Your task to perform on an android device: check android version Image 0: 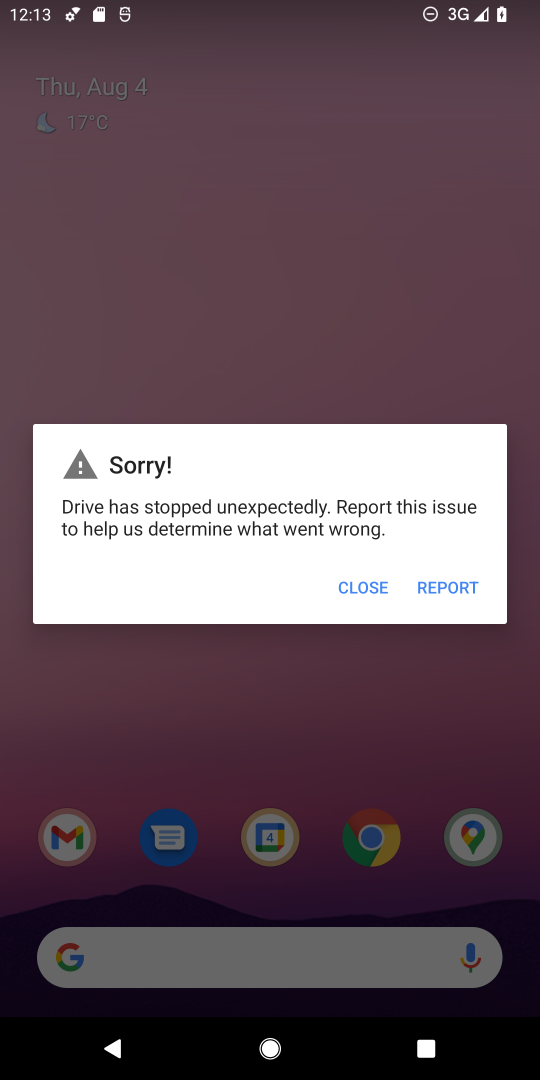
Step 0: click (355, 583)
Your task to perform on an android device: check android version Image 1: 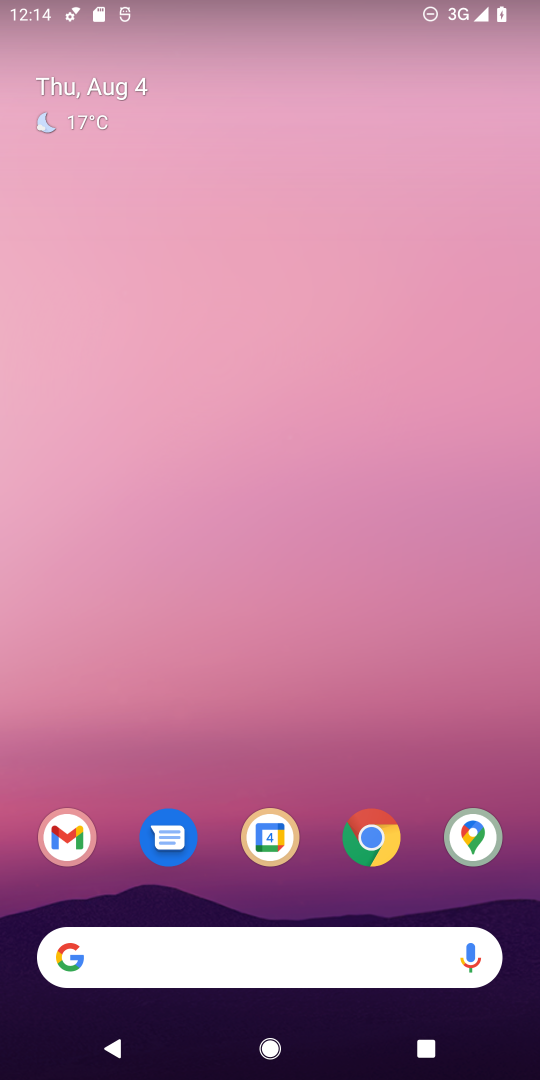
Step 1: drag from (323, 845) to (285, 86)
Your task to perform on an android device: check android version Image 2: 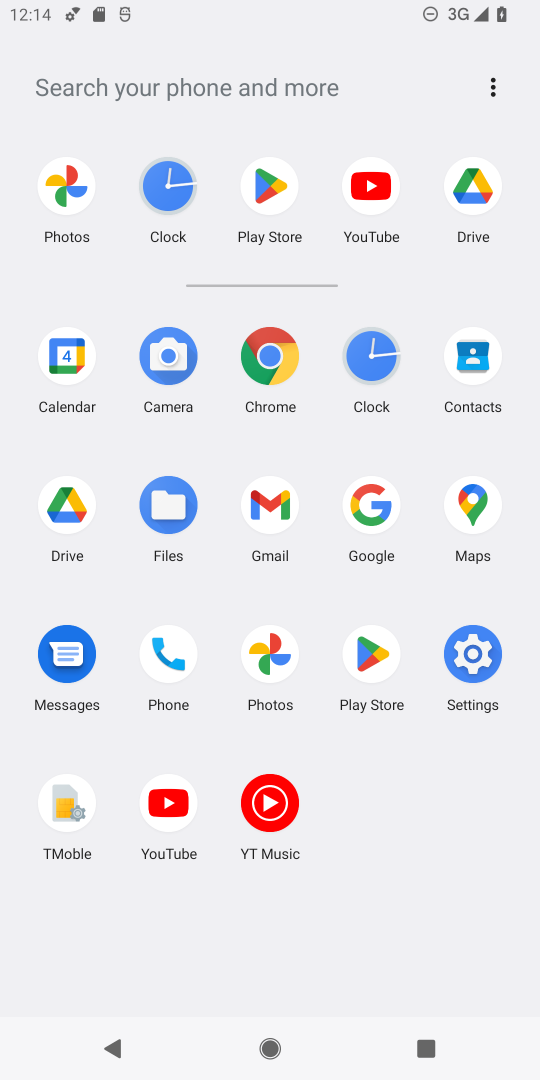
Step 2: click (459, 661)
Your task to perform on an android device: check android version Image 3: 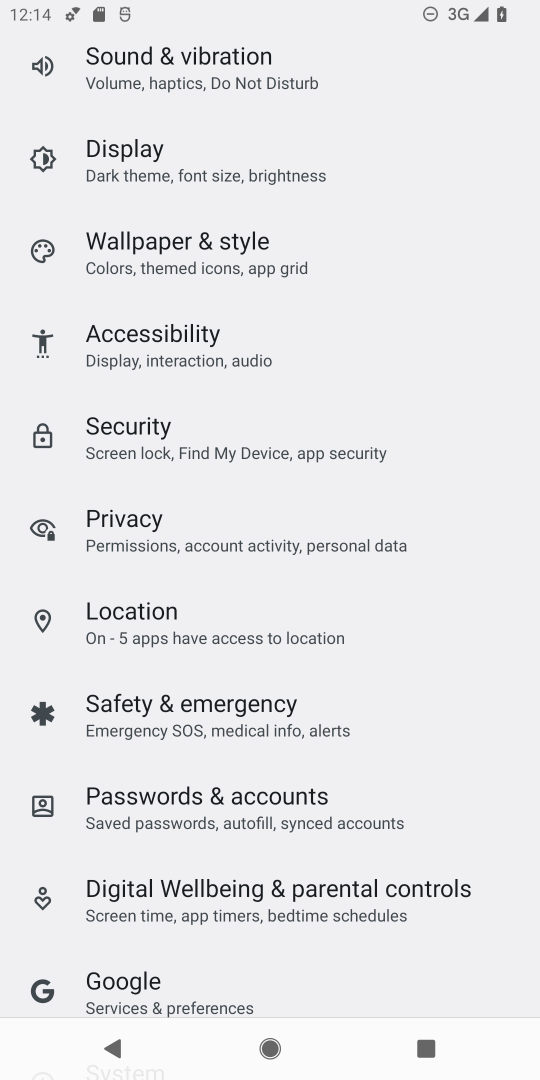
Step 3: drag from (211, 914) to (279, 56)
Your task to perform on an android device: check android version Image 4: 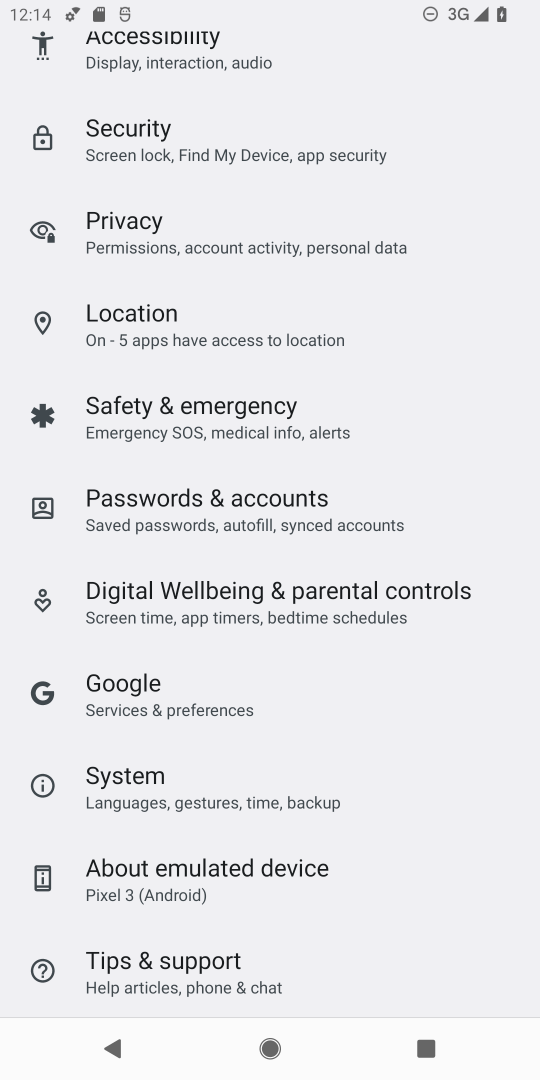
Step 4: drag from (217, 942) to (235, 100)
Your task to perform on an android device: check android version Image 5: 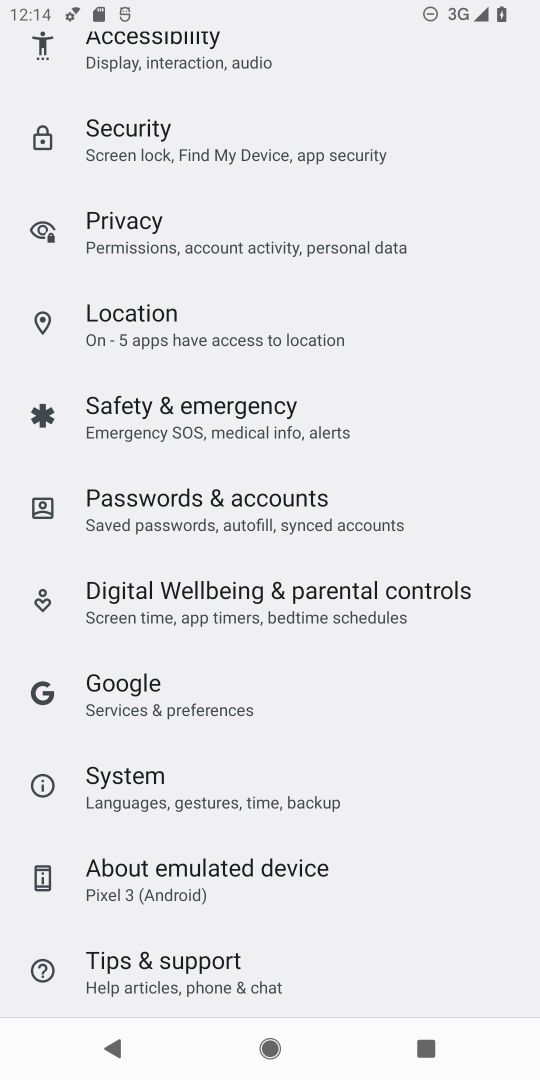
Step 5: click (169, 799)
Your task to perform on an android device: check android version Image 6: 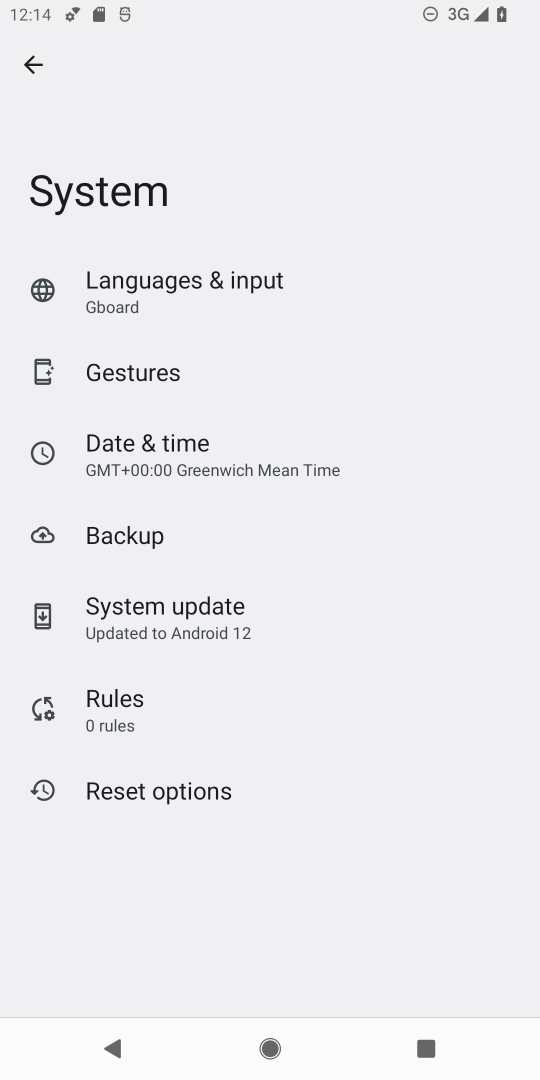
Step 6: task complete